Your task to perform on an android device: delete the emails in spam in the gmail app Image 0: 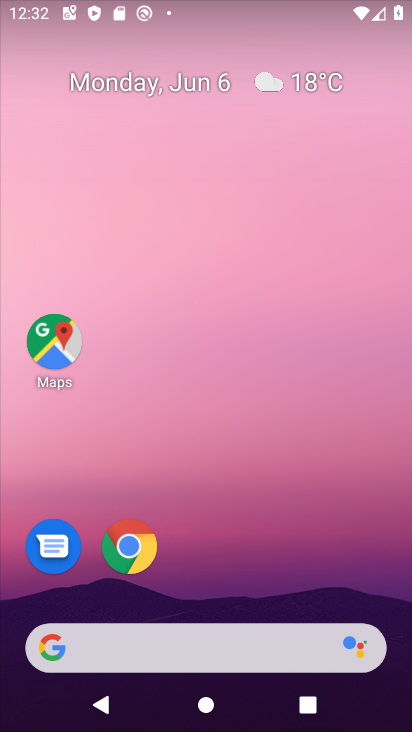
Step 0: press home button
Your task to perform on an android device: delete the emails in spam in the gmail app Image 1: 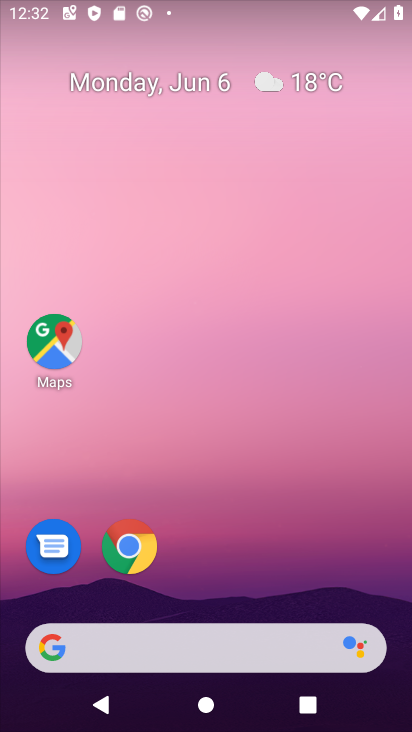
Step 1: drag from (273, 535) to (300, 82)
Your task to perform on an android device: delete the emails in spam in the gmail app Image 2: 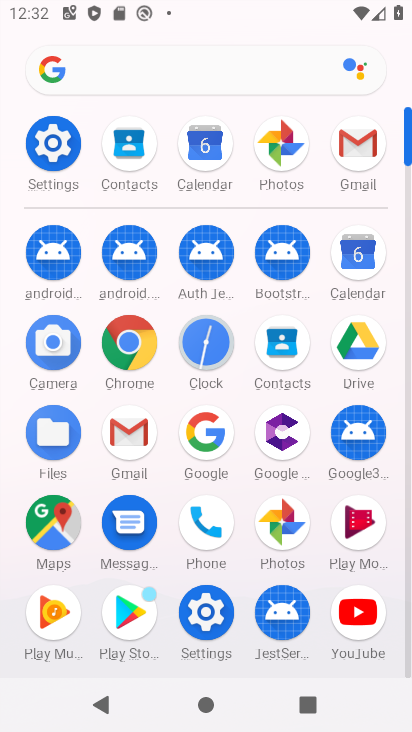
Step 2: click (366, 149)
Your task to perform on an android device: delete the emails in spam in the gmail app Image 3: 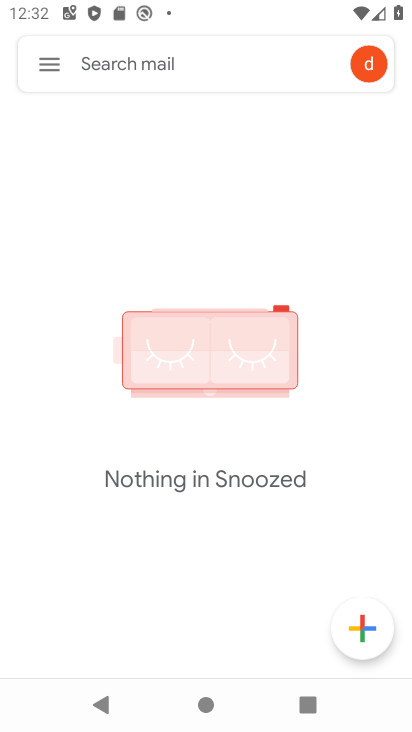
Step 3: click (51, 80)
Your task to perform on an android device: delete the emails in spam in the gmail app Image 4: 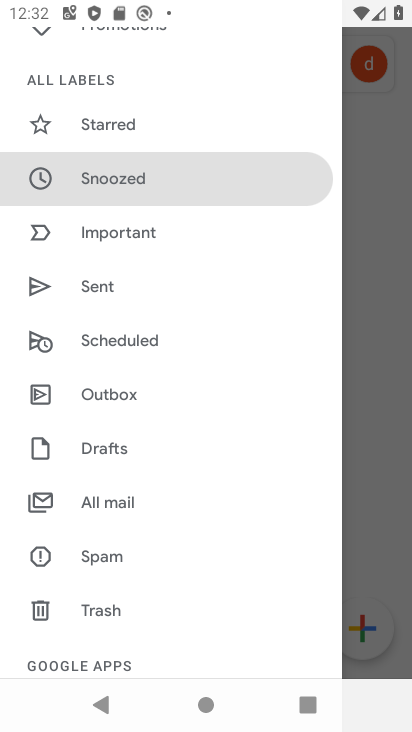
Step 4: click (122, 556)
Your task to perform on an android device: delete the emails in spam in the gmail app Image 5: 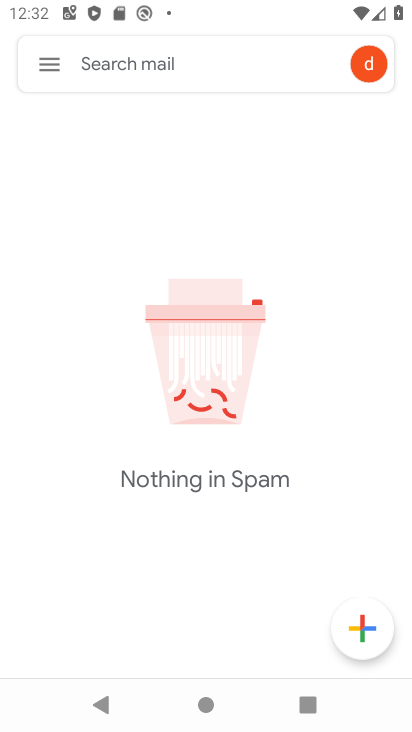
Step 5: task complete